Your task to perform on an android device: toggle sleep mode Image 0: 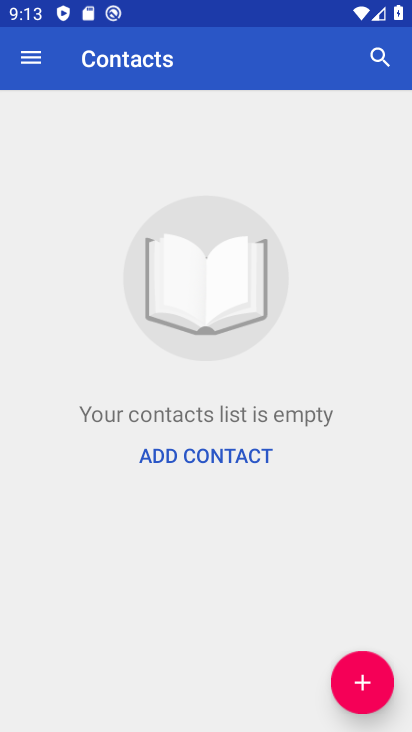
Step 0: press home button
Your task to perform on an android device: toggle sleep mode Image 1: 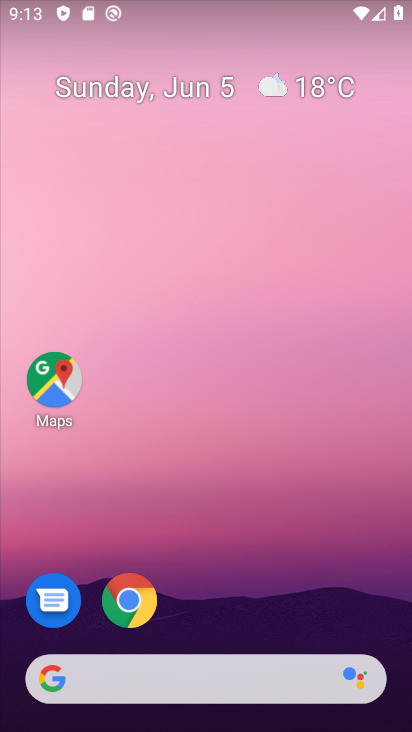
Step 1: drag from (281, 510) to (269, 87)
Your task to perform on an android device: toggle sleep mode Image 2: 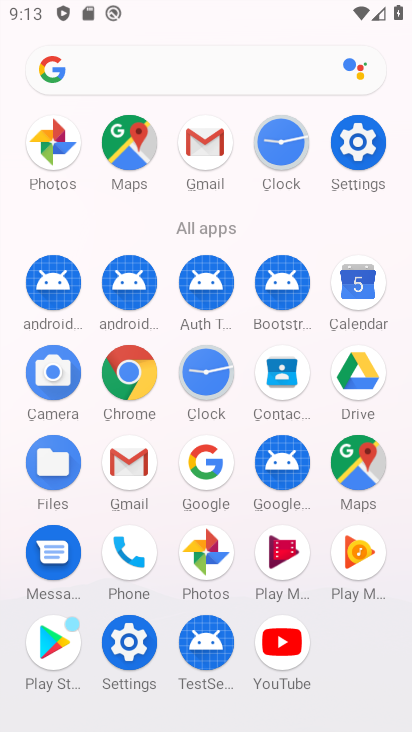
Step 2: click (356, 132)
Your task to perform on an android device: toggle sleep mode Image 3: 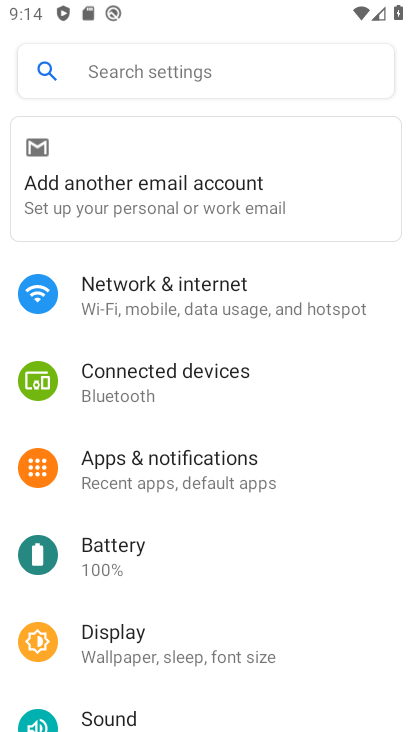
Step 3: click (161, 644)
Your task to perform on an android device: toggle sleep mode Image 4: 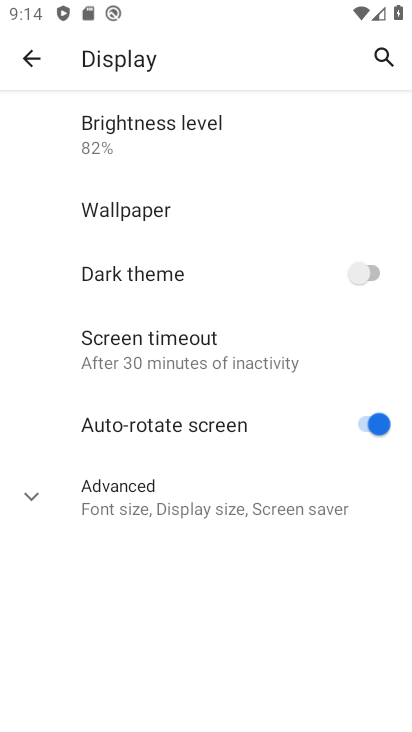
Step 4: click (149, 511)
Your task to perform on an android device: toggle sleep mode Image 5: 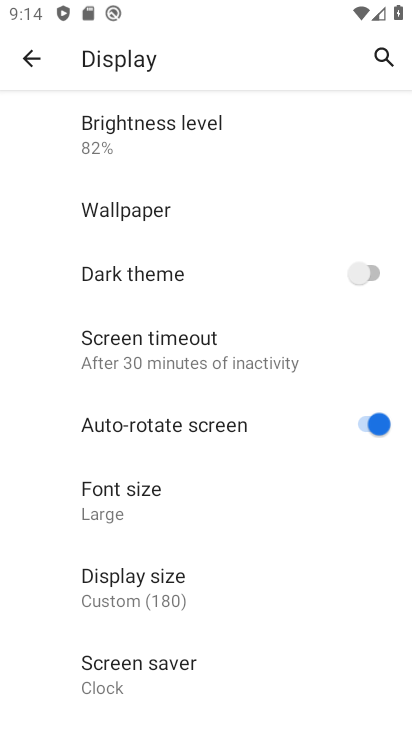
Step 5: click (241, 360)
Your task to perform on an android device: toggle sleep mode Image 6: 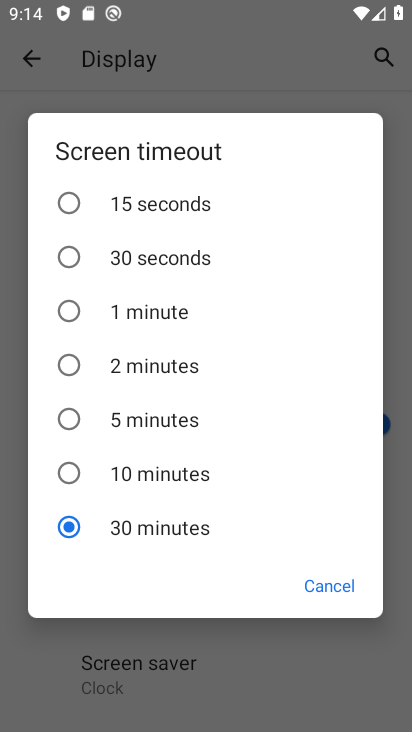
Step 6: click (136, 476)
Your task to perform on an android device: toggle sleep mode Image 7: 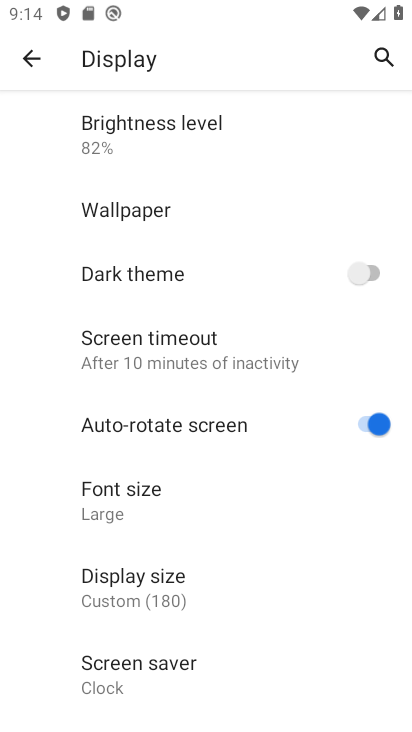
Step 7: task complete